Your task to perform on an android device: change the clock display to digital Image 0: 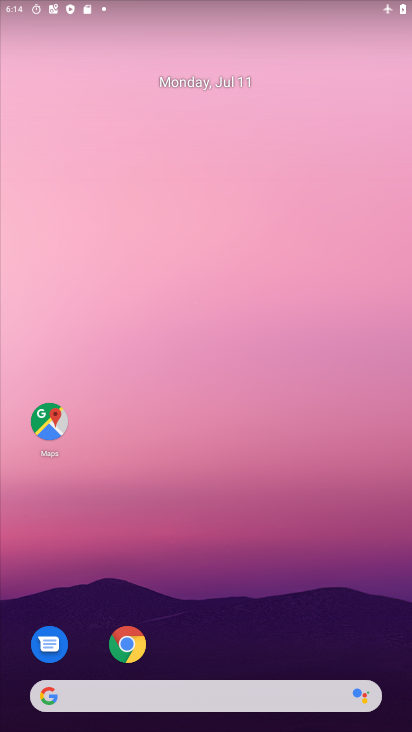
Step 0: drag from (283, 701) to (345, 256)
Your task to perform on an android device: change the clock display to digital Image 1: 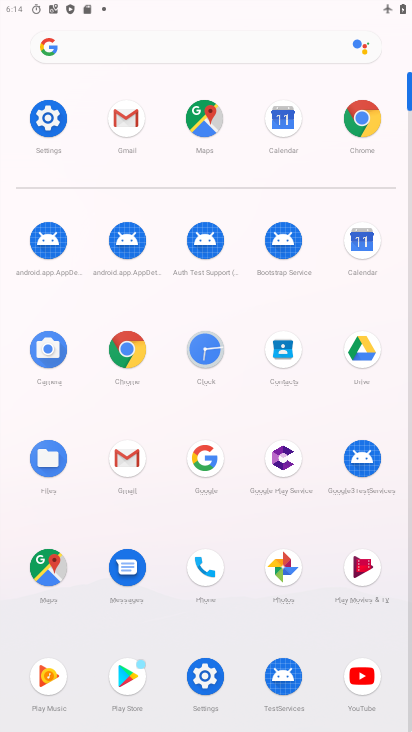
Step 1: click (215, 351)
Your task to perform on an android device: change the clock display to digital Image 2: 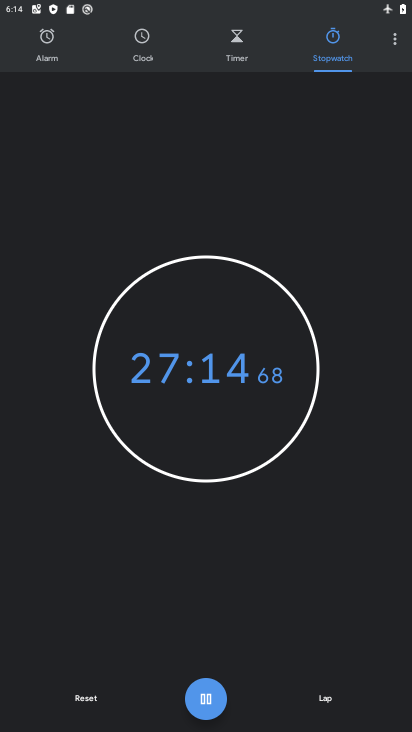
Step 2: click (396, 35)
Your task to perform on an android device: change the clock display to digital Image 3: 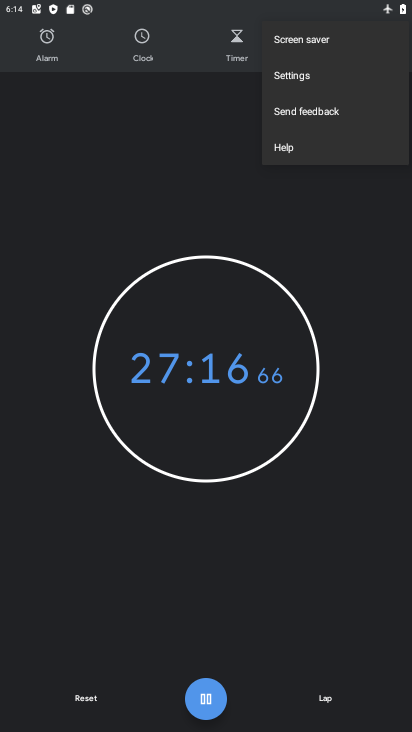
Step 3: click (325, 77)
Your task to perform on an android device: change the clock display to digital Image 4: 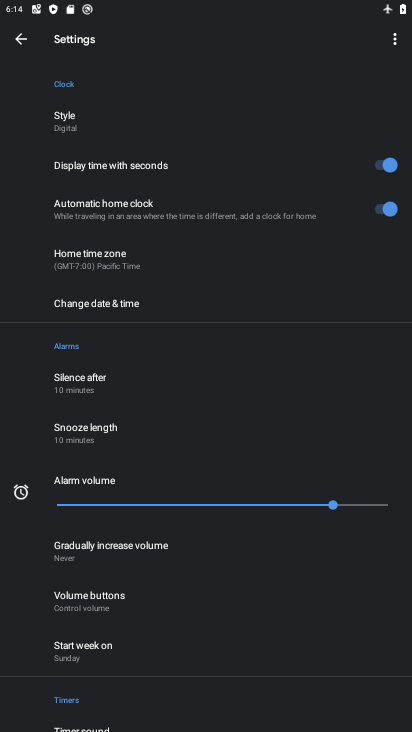
Step 4: task complete